Your task to perform on an android device: Open Wikipedia Image 0: 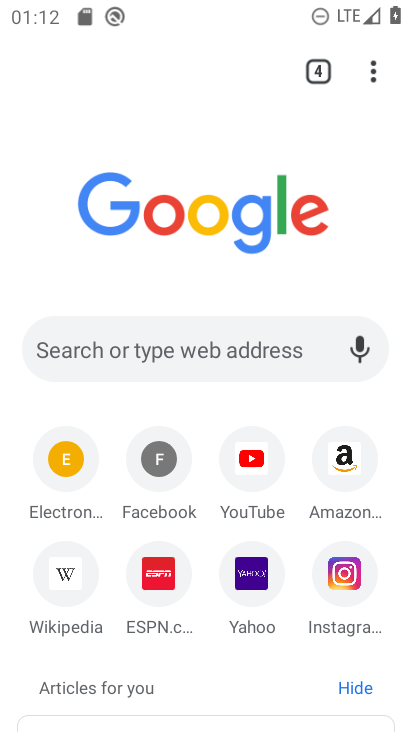
Step 0: click (66, 596)
Your task to perform on an android device: Open Wikipedia Image 1: 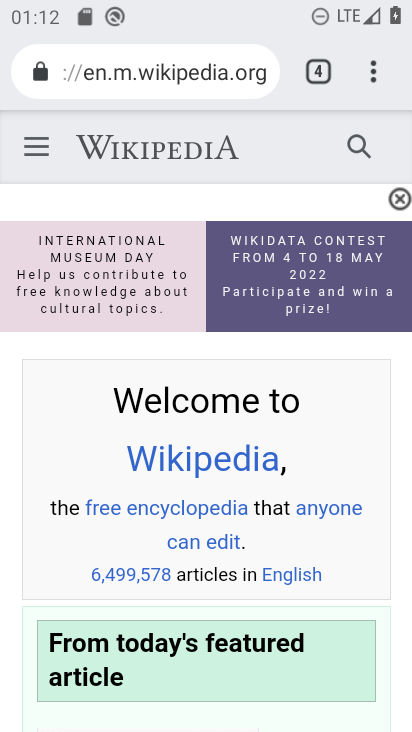
Step 1: task complete